Your task to perform on an android device: Search for pizza restaurants on Maps Image 0: 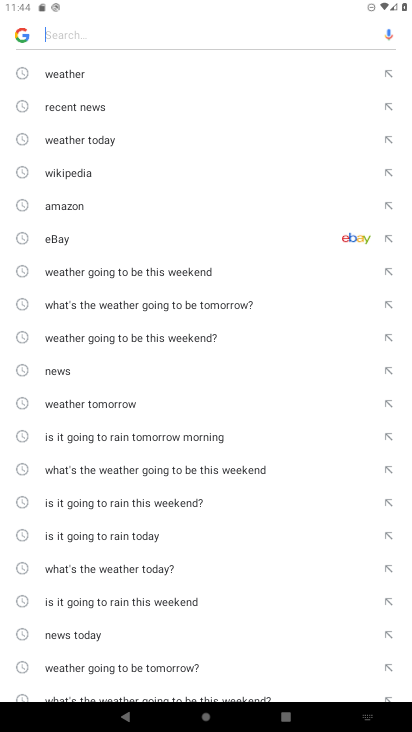
Step 0: press home button
Your task to perform on an android device: Search for pizza restaurants on Maps Image 1: 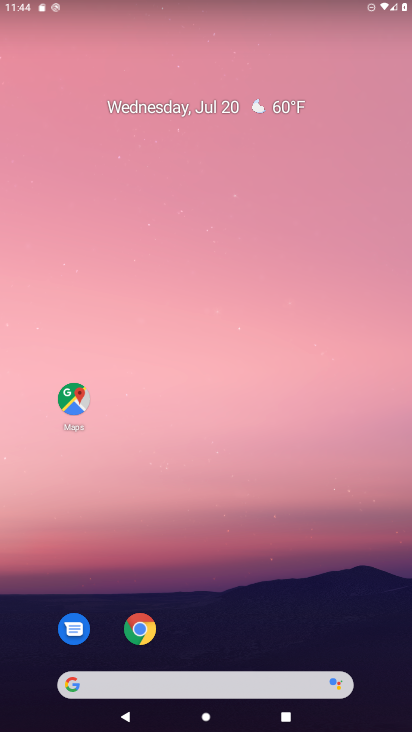
Step 1: click (83, 398)
Your task to perform on an android device: Search for pizza restaurants on Maps Image 2: 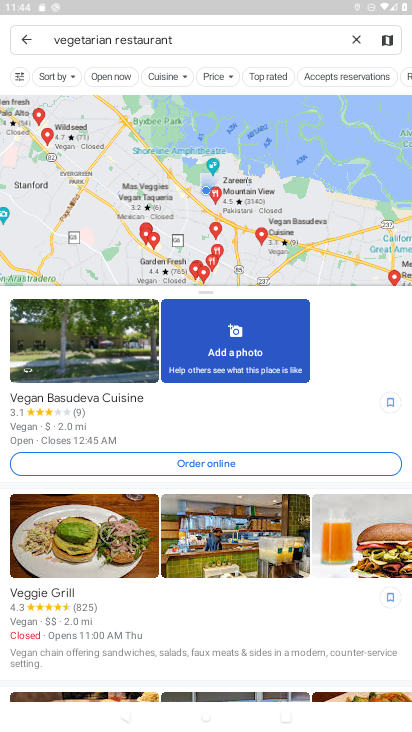
Step 2: click (354, 37)
Your task to perform on an android device: Search for pizza restaurants on Maps Image 3: 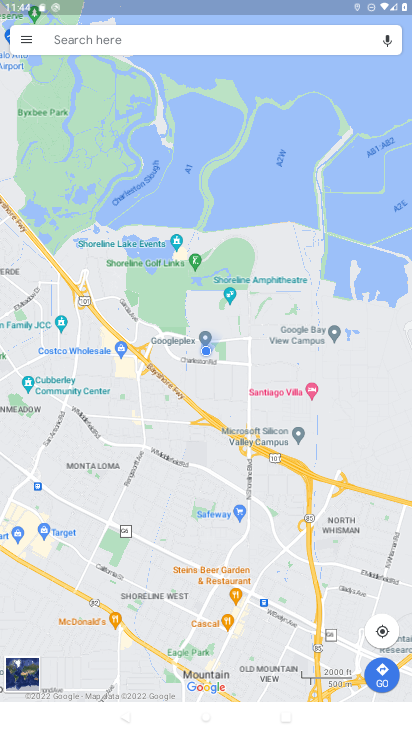
Step 3: click (190, 43)
Your task to perform on an android device: Search for pizza restaurants on Maps Image 4: 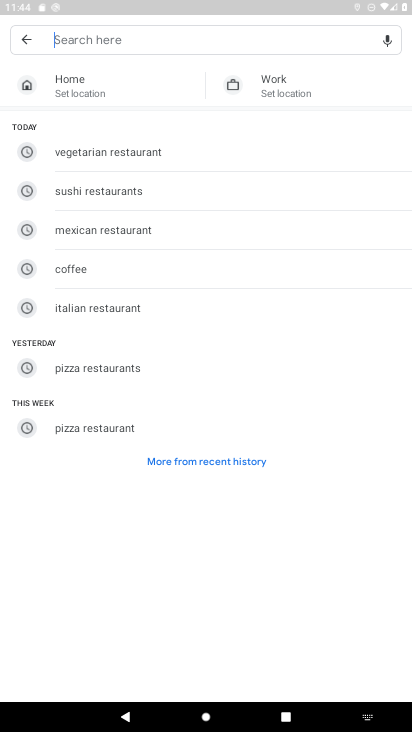
Step 4: type "pizza restaurants"
Your task to perform on an android device: Search for pizza restaurants on Maps Image 5: 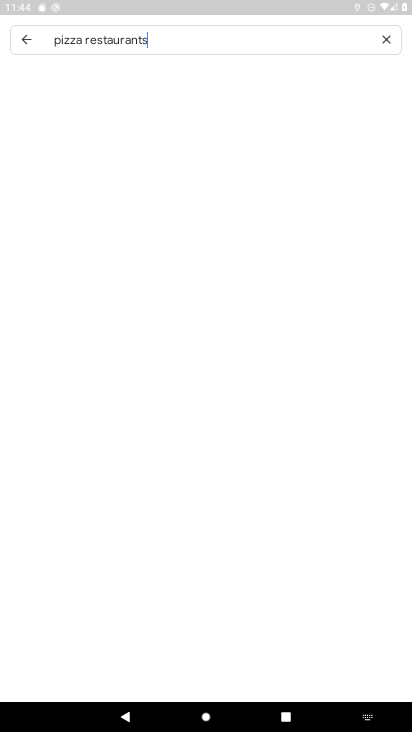
Step 5: type ""
Your task to perform on an android device: Search for pizza restaurants on Maps Image 6: 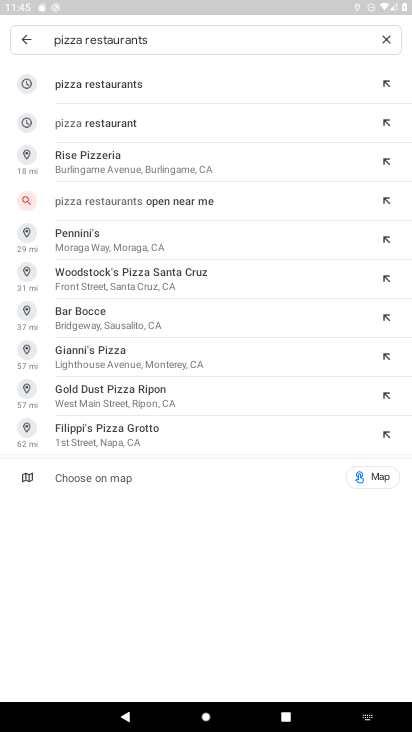
Step 6: click (134, 80)
Your task to perform on an android device: Search for pizza restaurants on Maps Image 7: 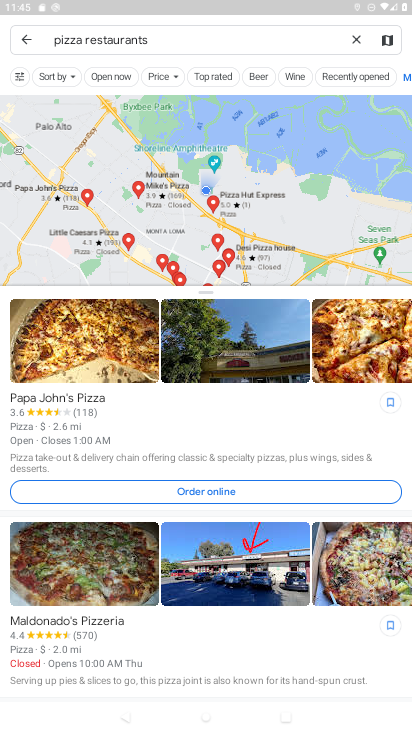
Step 7: task complete